Your task to perform on an android device: toggle notifications settings in the gmail app Image 0: 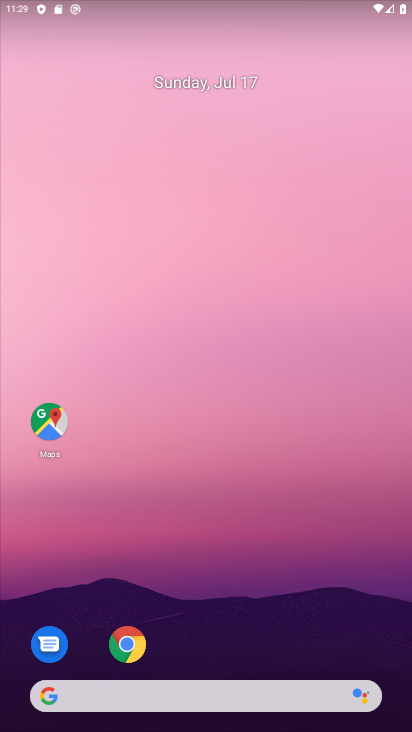
Step 0: drag from (392, 684) to (309, 42)
Your task to perform on an android device: toggle notifications settings in the gmail app Image 1: 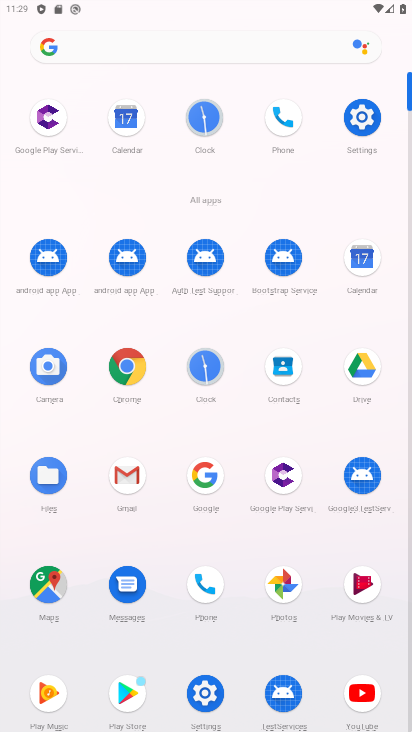
Step 1: click (145, 471)
Your task to perform on an android device: toggle notifications settings in the gmail app Image 2: 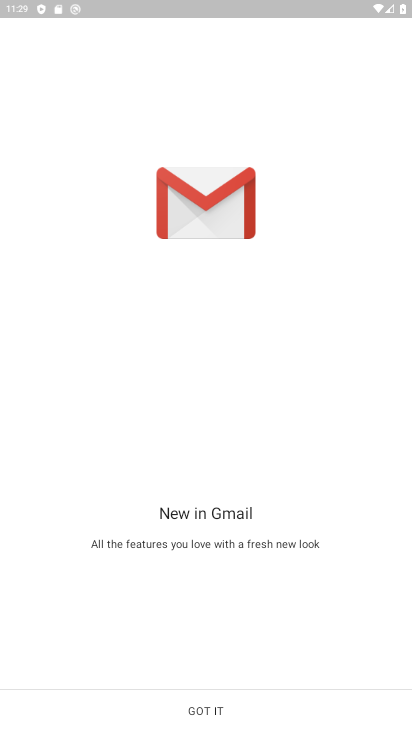
Step 2: click (196, 715)
Your task to perform on an android device: toggle notifications settings in the gmail app Image 3: 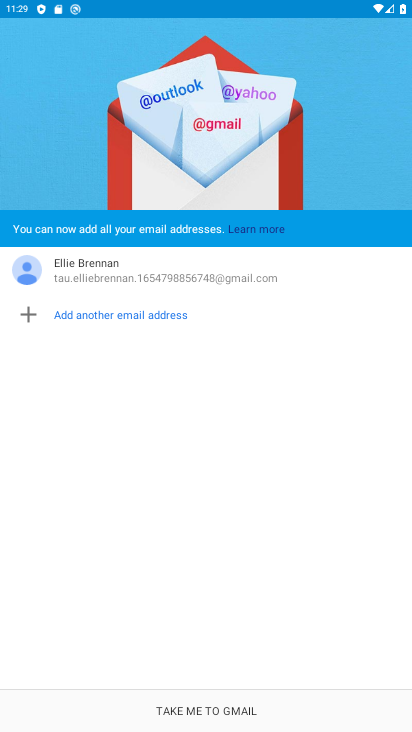
Step 3: click (198, 707)
Your task to perform on an android device: toggle notifications settings in the gmail app Image 4: 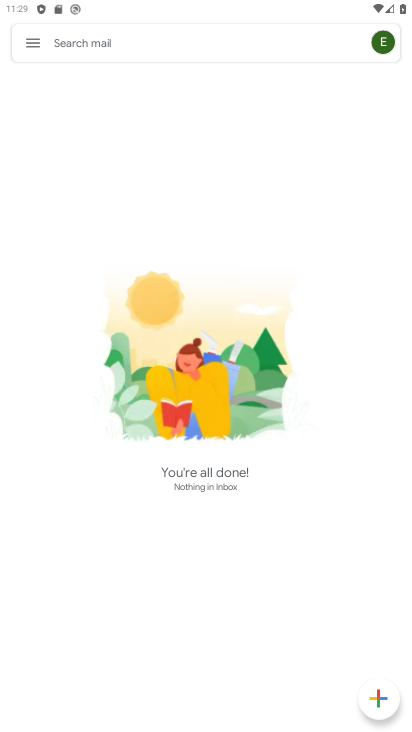
Step 4: click (28, 43)
Your task to perform on an android device: toggle notifications settings in the gmail app Image 5: 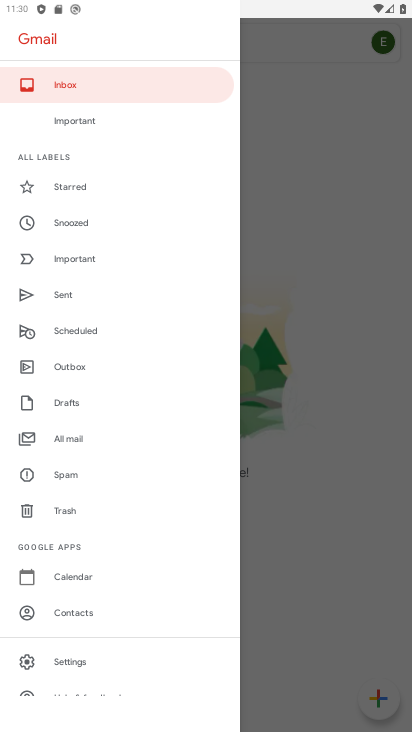
Step 5: click (61, 660)
Your task to perform on an android device: toggle notifications settings in the gmail app Image 6: 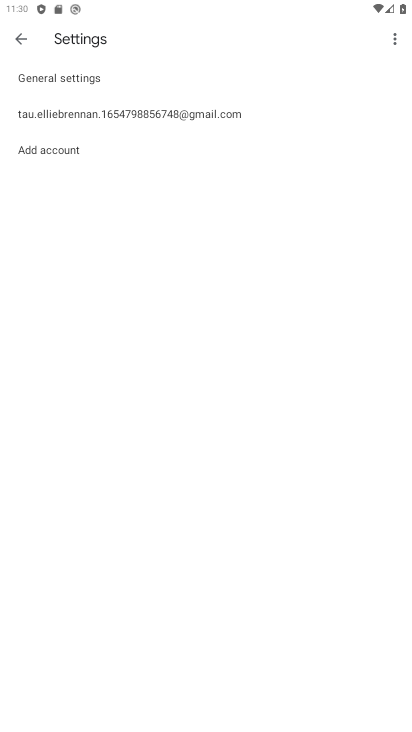
Step 6: click (120, 114)
Your task to perform on an android device: toggle notifications settings in the gmail app Image 7: 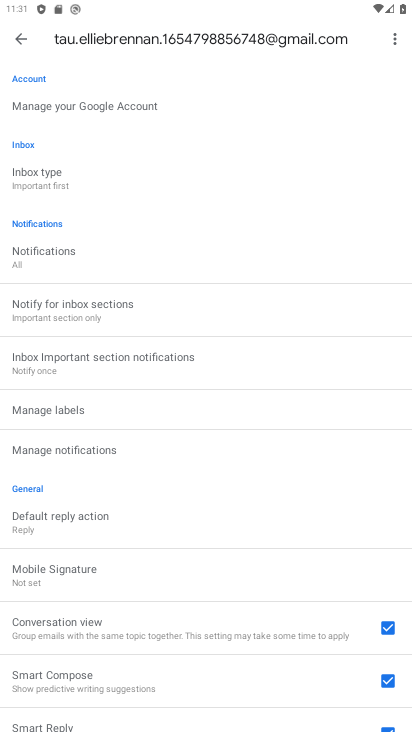
Step 7: click (107, 257)
Your task to perform on an android device: toggle notifications settings in the gmail app Image 8: 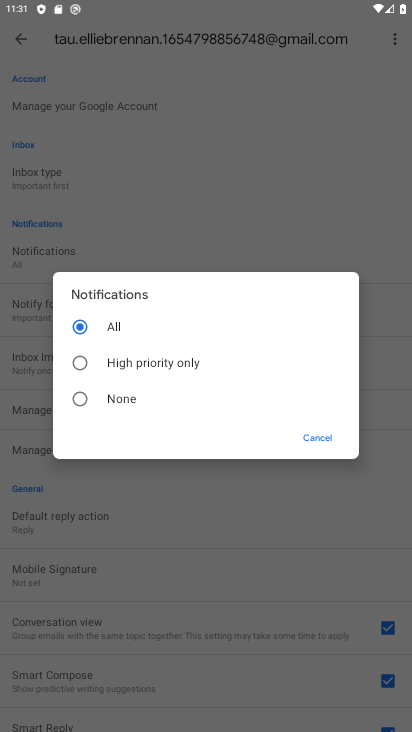
Step 8: click (119, 360)
Your task to perform on an android device: toggle notifications settings in the gmail app Image 9: 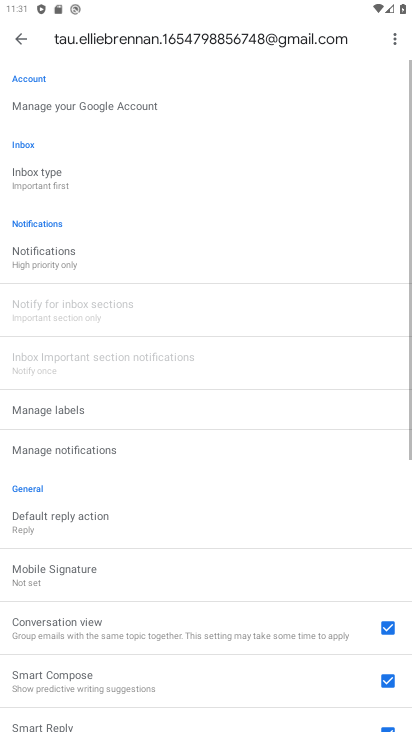
Step 9: task complete